Your task to perform on an android device: install app "Pluto TV - Live TV and Movies" Image 0: 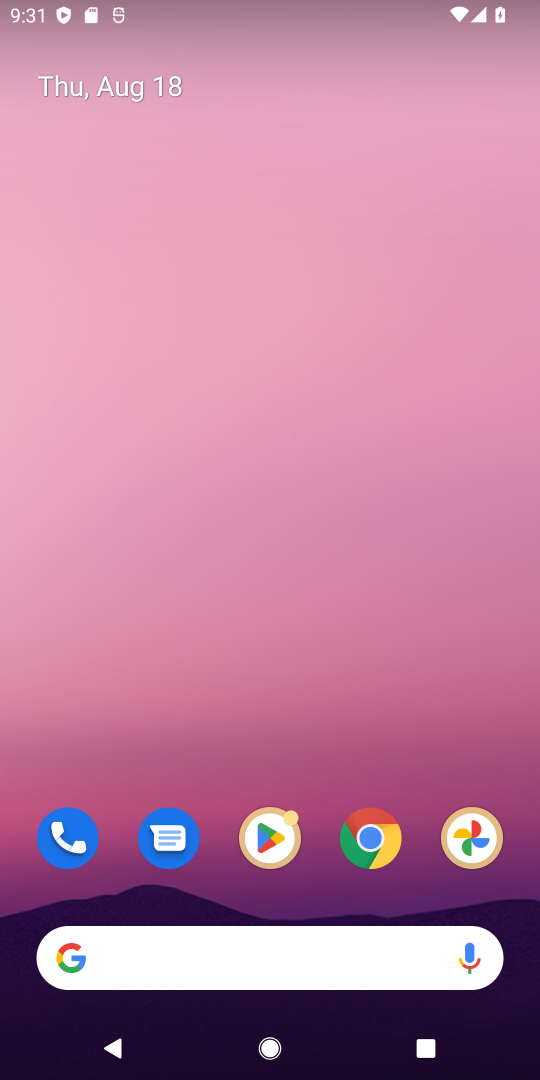
Step 0: click (272, 844)
Your task to perform on an android device: install app "Pluto TV - Live TV and Movies" Image 1: 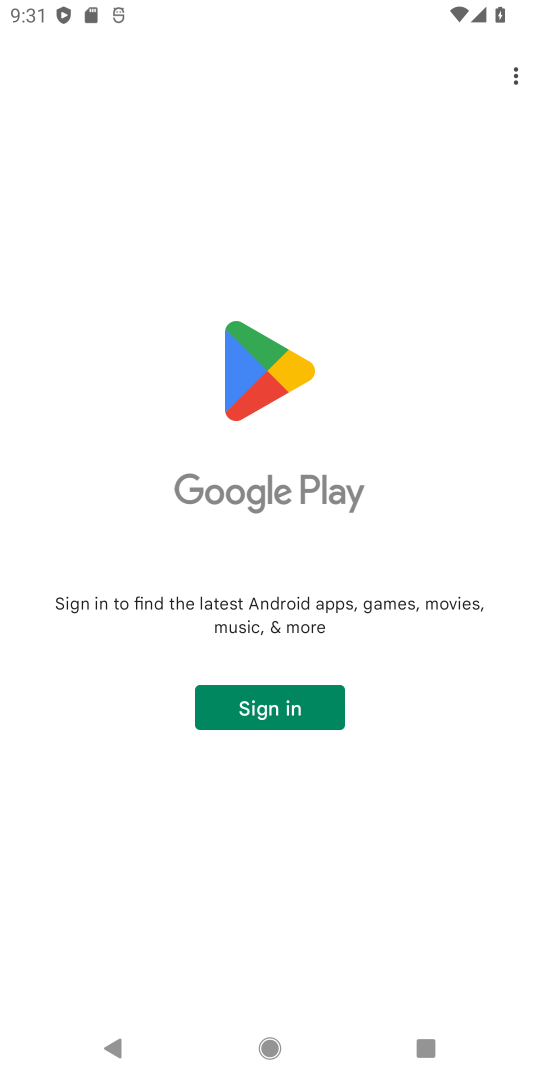
Step 1: task complete